Your task to perform on an android device: toggle wifi Image 0: 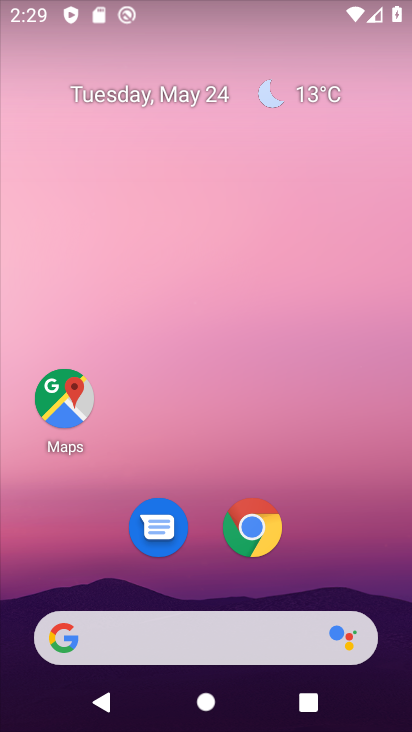
Step 0: drag from (330, 192) to (305, 10)
Your task to perform on an android device: toggle wifi Image 1: 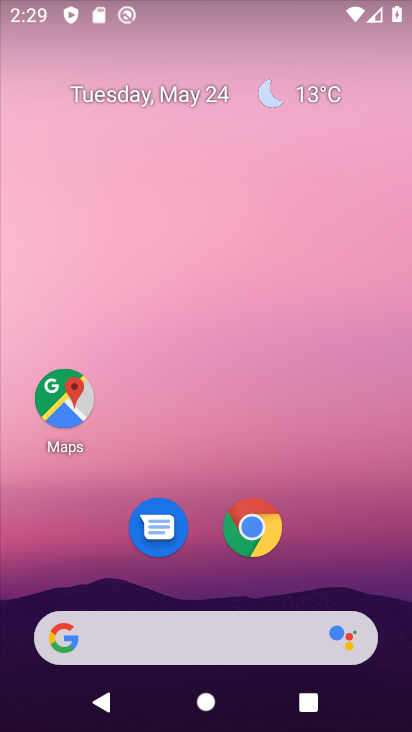
Step 1: drag from (301, 555) to (295, 0)
Your task to perform on an android device: toggle wifi Image 2: 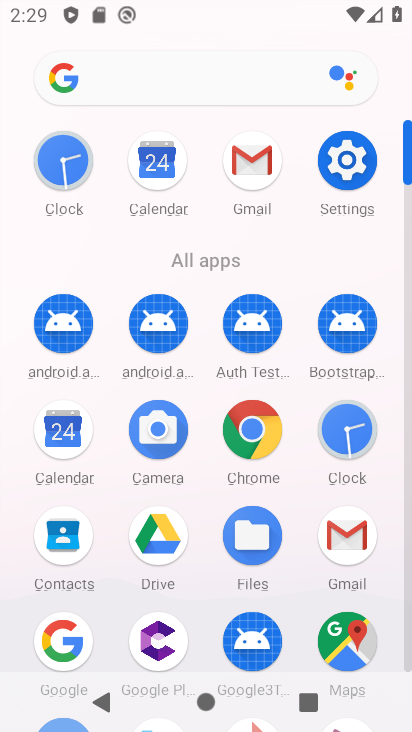
Step 2: click (345, 157)
Your task to perform on an android device: toggle wifi Image 3: 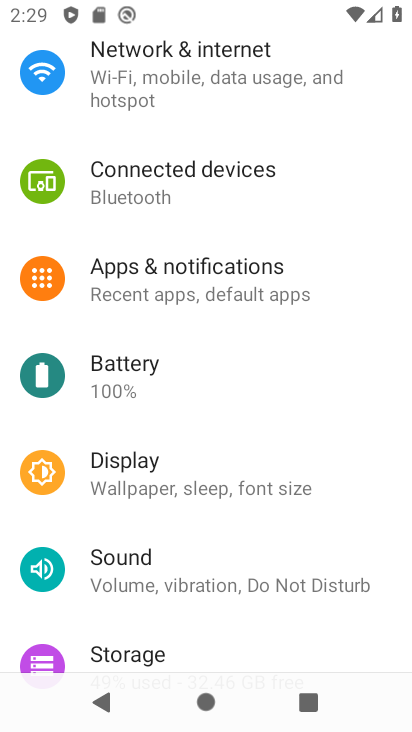
Step 3: drag from (253, 190) to (245, 552)
Your task to perform on an android device: toggle wifi Image 4: 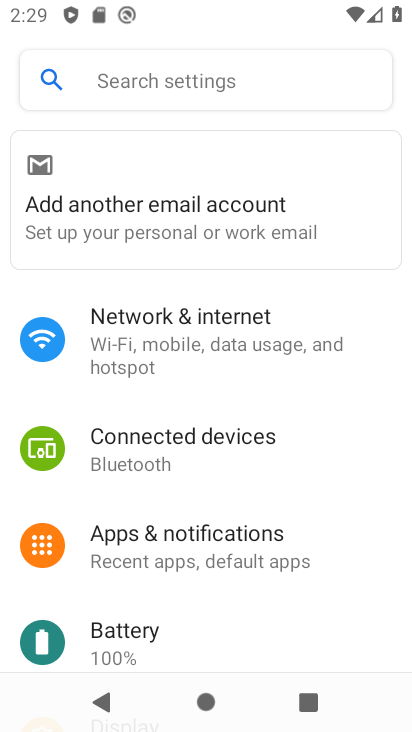
Step 4: click (206, 342)
Your task to perform on an android device: toggle wifi Image 5: 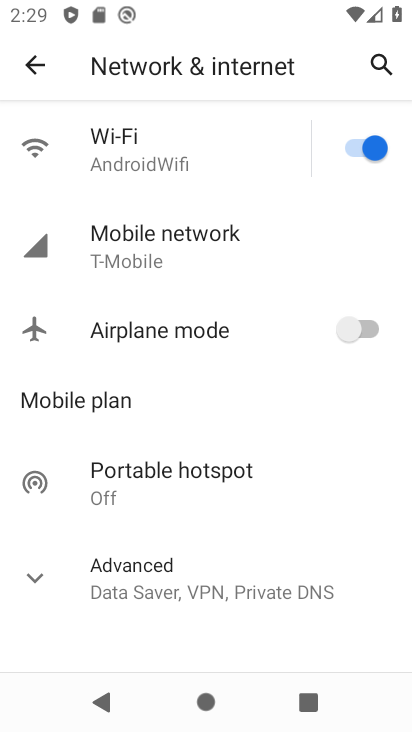
Step 5: click (375, 145)
Your task to perform on an android device: toggle wifi Image 6: 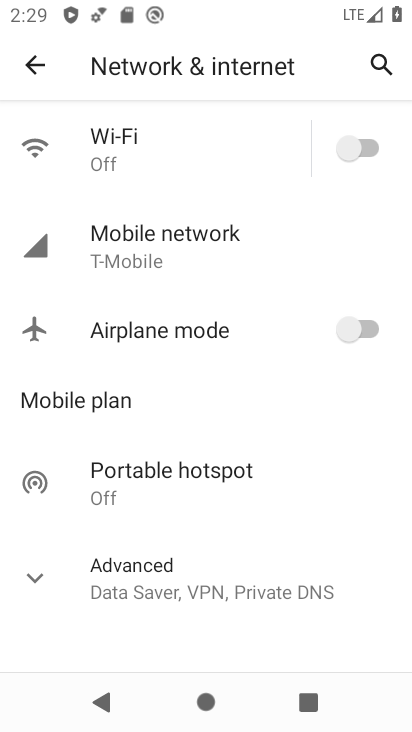
Step 6: task complete